Your task to perform on an android device: open chrome privacy settings Image 0: 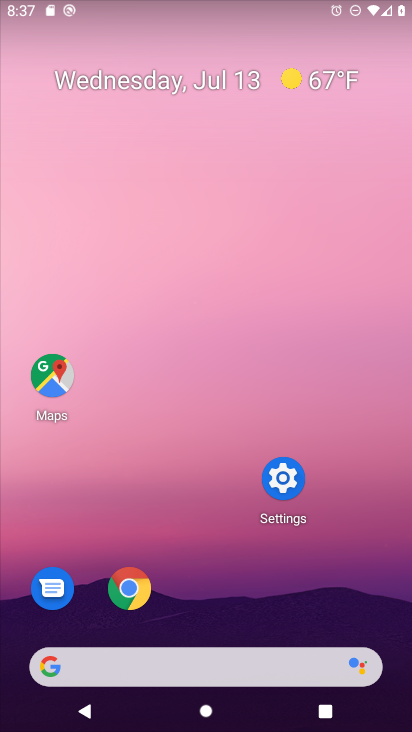
Step 0: click (135, 597)
Your task to perform on an android device: open chrome privacy settings Image 1: 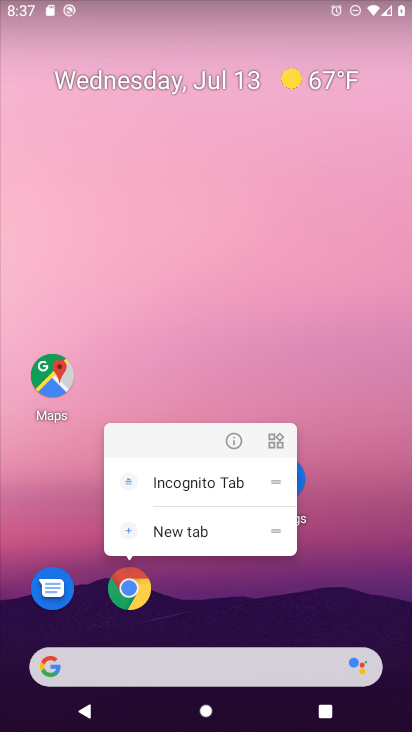
Step 1: click (136, 591)
Your task to perform on an android device: open chrome privacy settings Image 2: 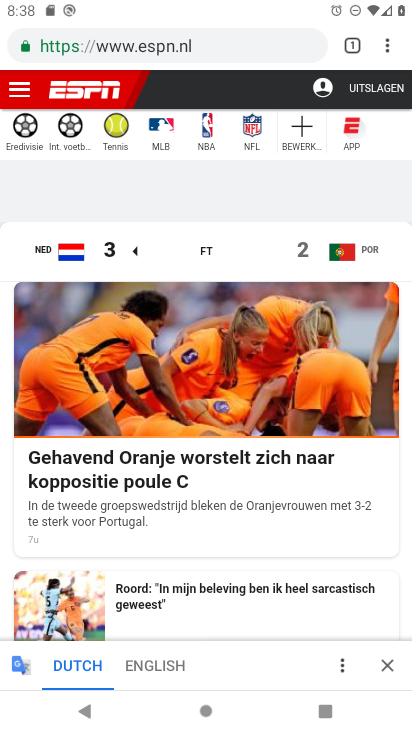
Step 2: click (388, 48)
Your task to perform on an android device: open chrome privacy settings Image 3: 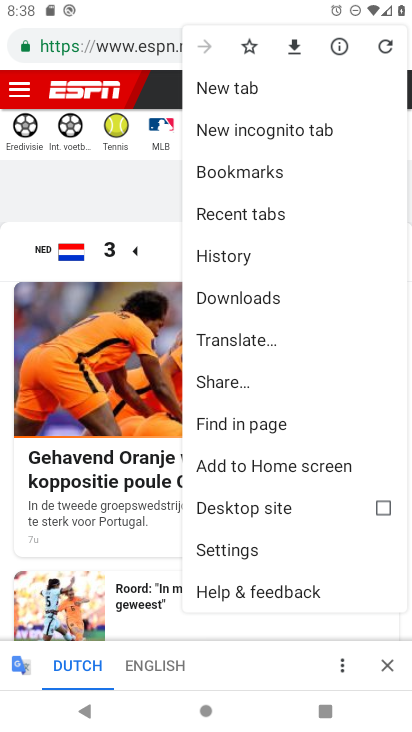
Step 3: click (242, 547)
Your task to perform on an android device: open chrome privacy settings Image 4: 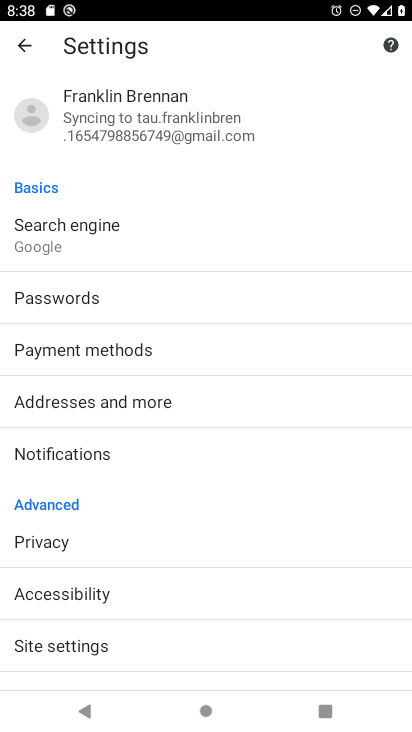
Step 4: click (92, 547)
Your task to perform on an android device: open chrome privacy settings Image 5: 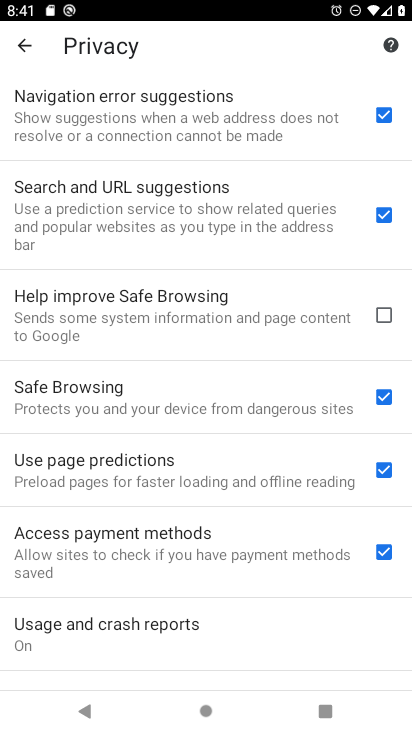
Step 5: task complete